Your task to perform on an android device: Go to sound settings Image 0: 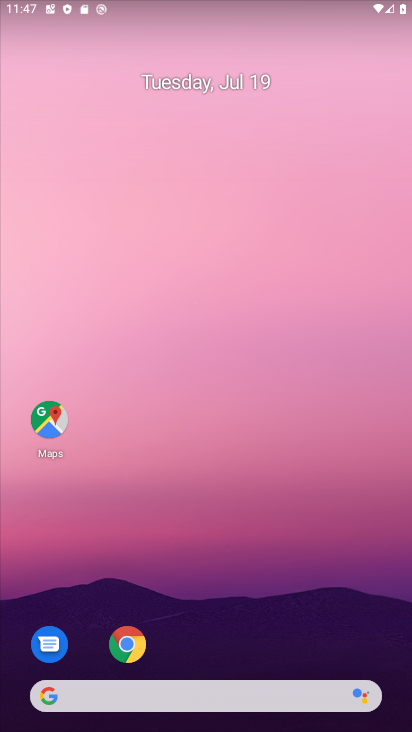
Step 0: drag from (199, 620) to (211, 179)
Your task to perform on an android device: Go to sound settings Image 1: 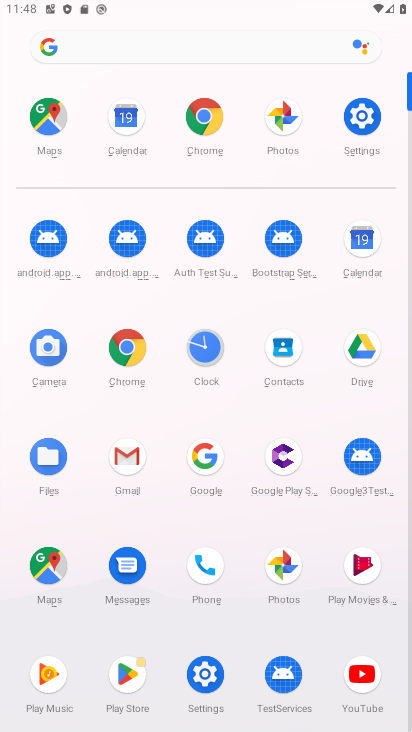
Step 1: click (209, 671)
Your task to perform on an android device: Go to sound settings Image 2: 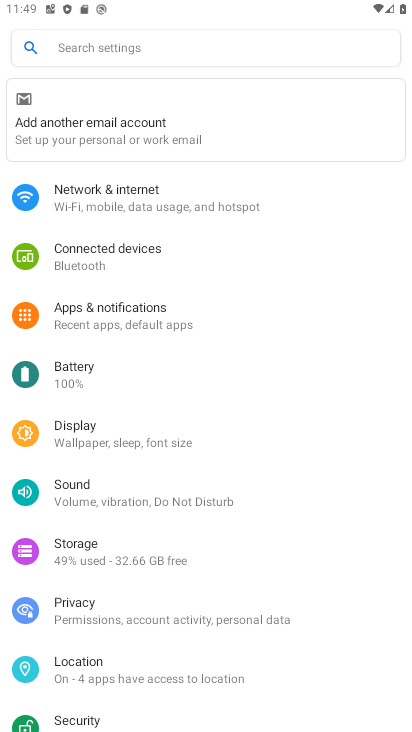
Step 2: click (43, 483)
Your task to perform on an android device: Go to sound settings Image 3: 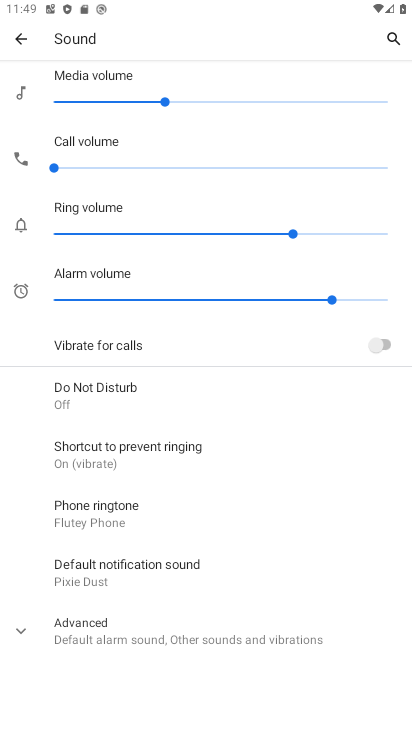
Step 3: task complete